Your task to perform on an android device: Open Chrome and go to settings Image 0: 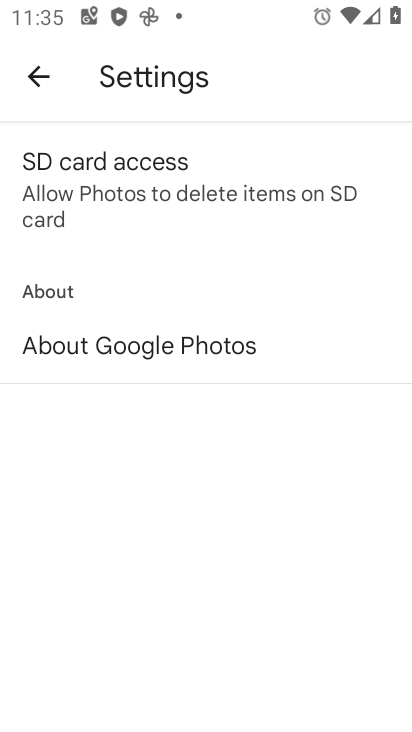
Step 0: press home button
Your task to perform on an android device: Open Chrome and go to settings Image 1: 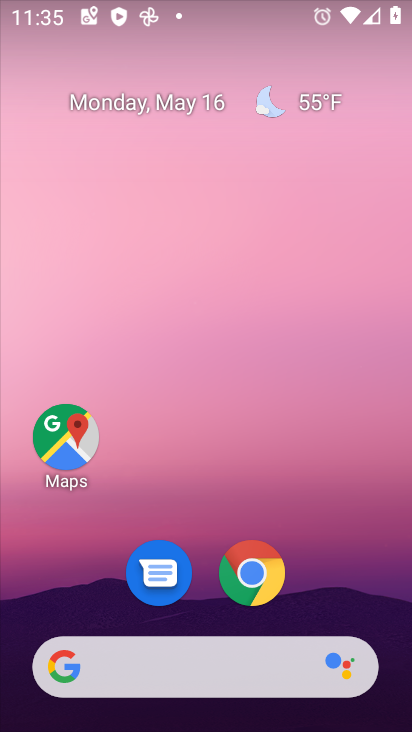
Step 1: click (268, 574)
Your task to perform on an android device: Open Chrome and go to settings Image 2: 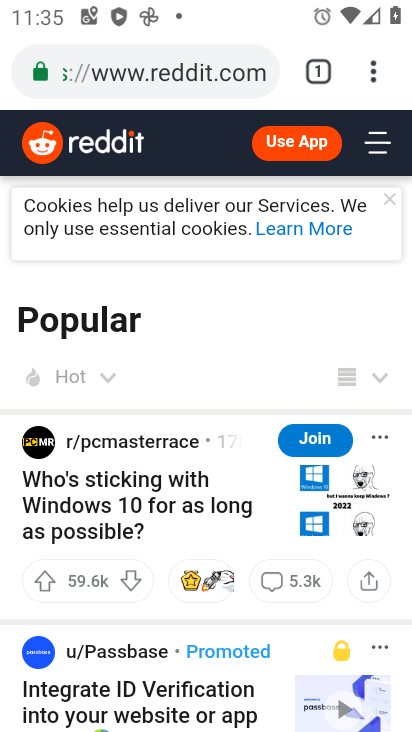
Step 2: click (379, 83)
Your task to perform on an android device: Open Chrome and go to settings Image 3: 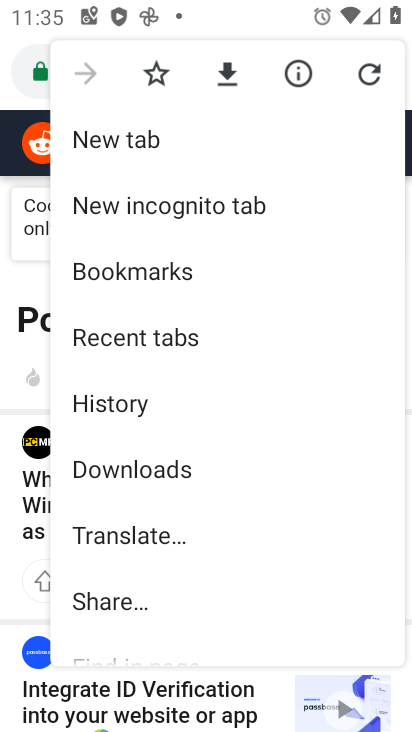
Step 3: drag from (230, 500) to (225, 195)
Your task to perform on an android device: Open Chrome and go to settings Image 4: 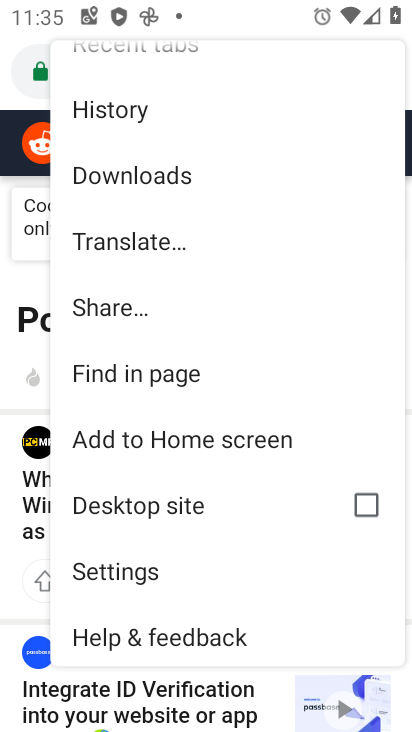
Step 4: click (171, 579)
Your task to perform on an android device: Open Chrome and go to settings Image 5: 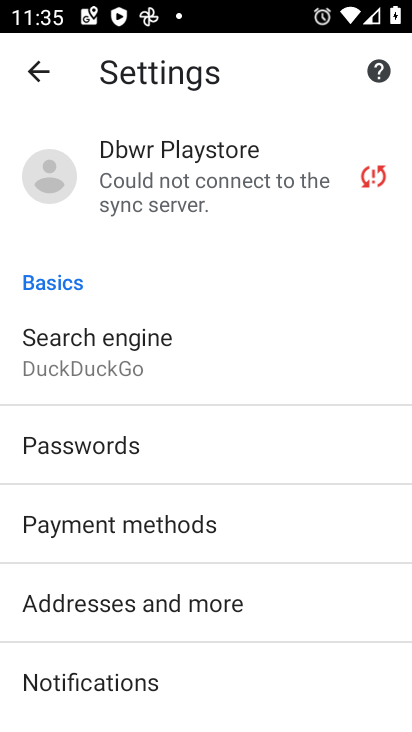
Step 5: task complete